Your task to perform on an android device: Add "alienware area 51" to the cart on amazon Image 0: 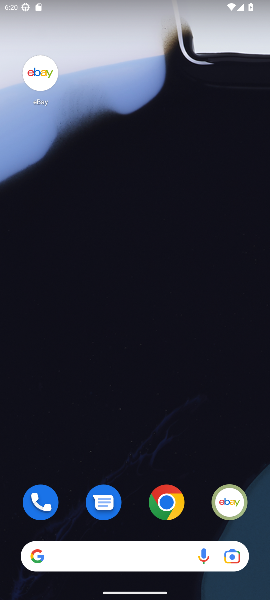
Step 0: drag from (86, 438) to (154, 154)
Your task to perform on an android device: Add "alienware area 51" to the cart on amazon Image 1: 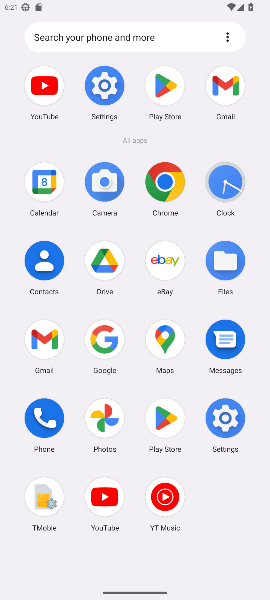
Step 1: click (102, 333)
Your task to perform on an android device: Add "alienware area 51" to the cart on amazon Image 2: 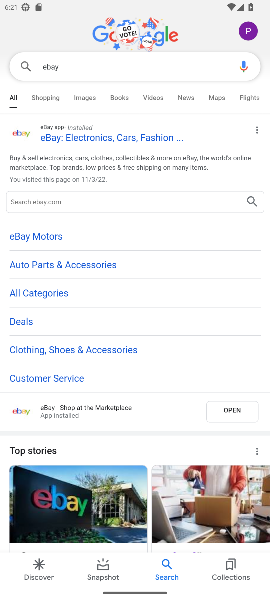
Step 2: click (83, 73)
Your task to perform on an android device: Add "alienware area 51" to the cart on amazon Image 3: 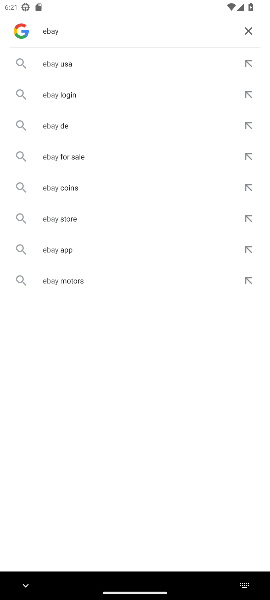
Step 3: click (242, 33)
Your task to perform on an android device: Add "alienware area 51" to the cart on amazon Image 4: 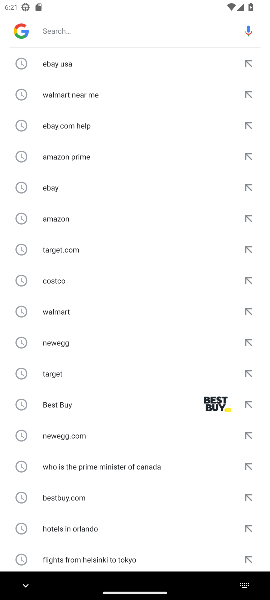
Step 4: click (65, 22)
Your task to perform on an android device: Add "alienware area 51" to the cart on amazon Image 5: 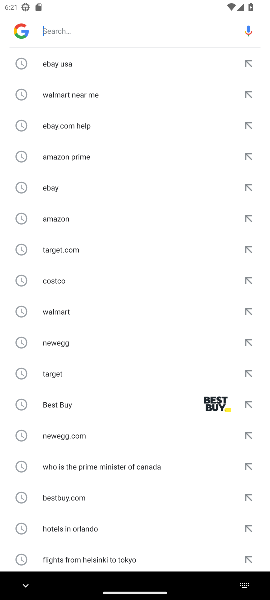
Step 5: type "amazon "
Your task to perform on an android device: Add "alienware area 51" to the cart on amazon Image 6: 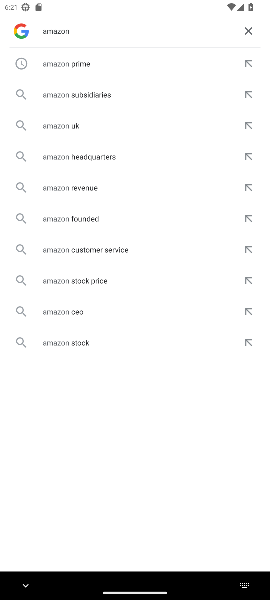
Step 6: click (54, 128)
Your task to perform on an android device: Add "alienware area 51" to the cart on amazon Image 7: 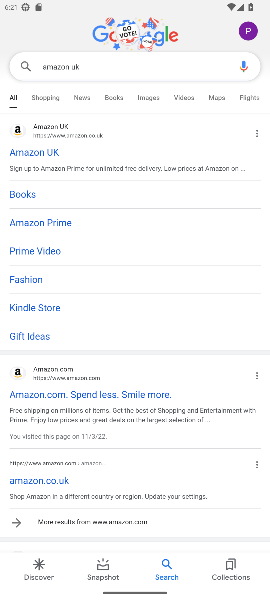
Step 7: click (15, 130)
Your task to perform on an android device: Add "alienware area 51" to the cart on amazon Image 8: 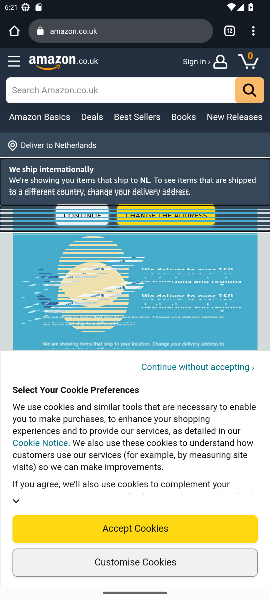
Step 8: click (92, 86)
Your task to perform on an android device: Add "alienware area 51" to the cart on amazon Image 9: 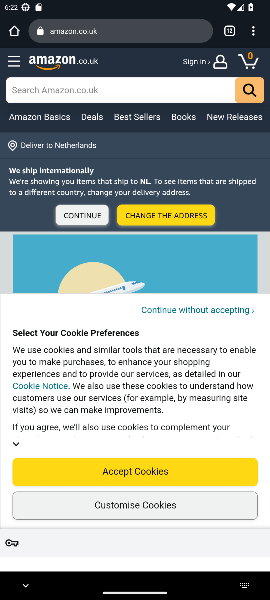
Step 9: click (53, 86)
Your task to perform on an android device: Add "alienware area 51" to the cart on amazon Image 10: 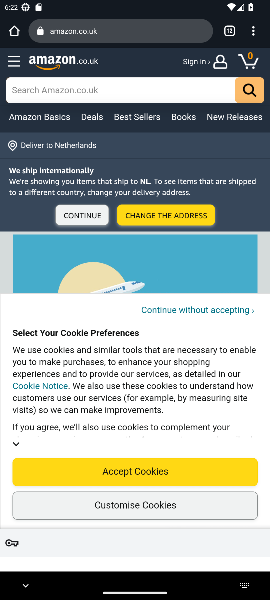
Step 10: type ""alienware area 51 "
Your task to perform on an android device: Add "alienware area 51" to the cart on amazon Image 11: 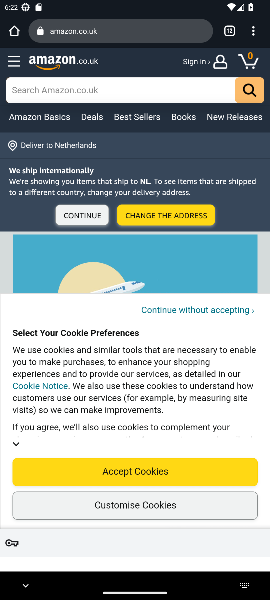
Step 11: click (64, 218)
Your task to perform on an android device: Add "alienware area 51" to the cart on amazon Image 12: 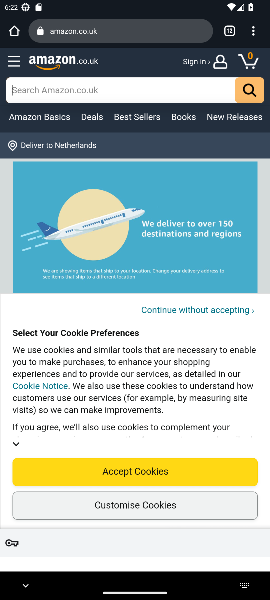
Step 12: click (152, 466)
Your task to perform on an android device: Add "alienware area 51" to the cart on amazon Image 13: 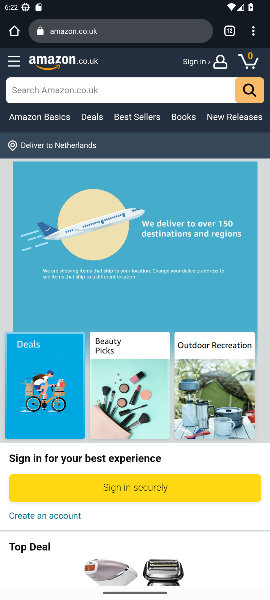
Step 13: click (113, 88)
Your task to perform on an android device: Add "alienware area 51" to the cart on amazon Image 14: 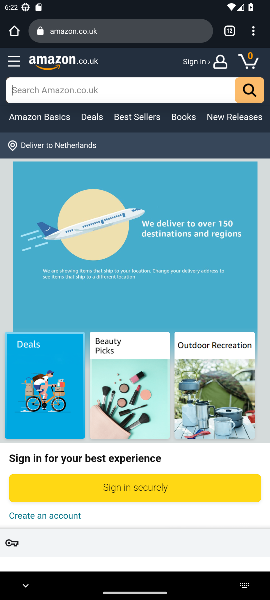
Step 14: click (113, 88)
Your task to perform on an android device: Add "alienware area 51" to the cart on amazon Image 15: 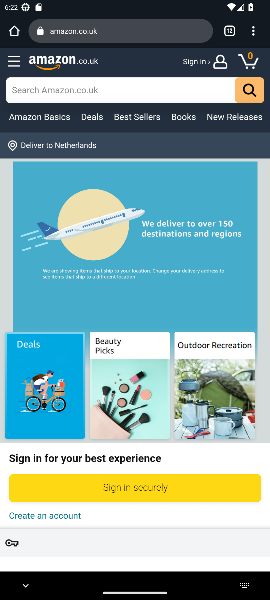
Step 15: click (113, 88)
Your task to perform on an android device: Add "alienware area 51" to the cart on amazon Image 16: 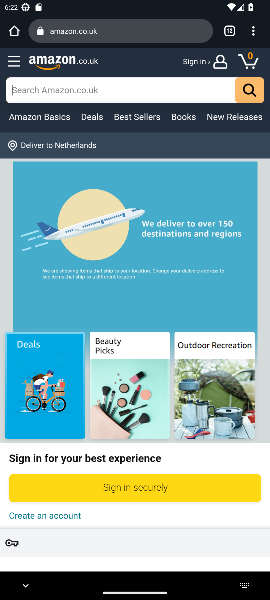
Step 16: type ""alienware area 51 "
Your task to perform on an android device: Add "alienware area 51" to the cart on amazon Image 17: 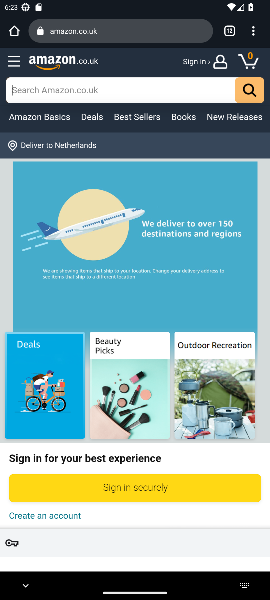
Step 17: click (78, 83)
Your task to perform on an android device: Add "alienware area 51" to the cart on amazon Image 18: 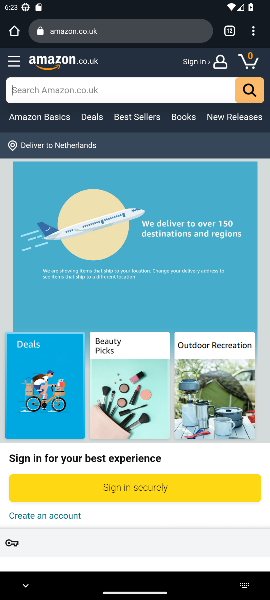
Step 18: click (78, 83)
Your task to perform on an android device: Add "alienware area 51" to the cart on amazon Image 19: 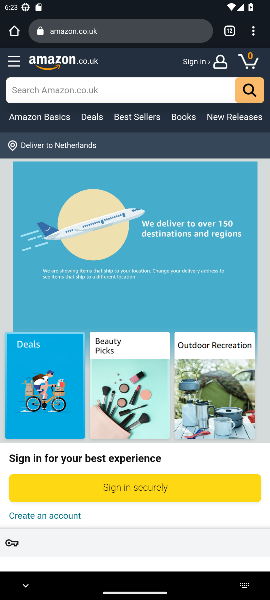
Step 19: type "alienware area 51 "
Your task to perform on an android device: Add "alienware area 51" to the cart on amazon Image 20: 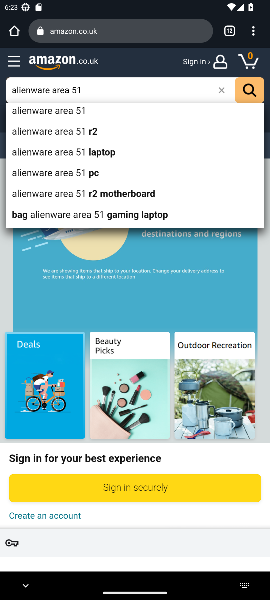
Step 20: click (69, 108)
Your task to perform on an android device: Add "alienware area 51" to the cart on amazon Image 21: 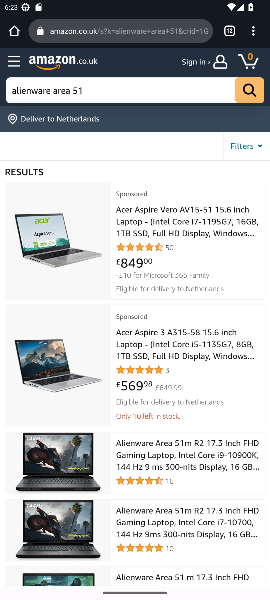
Step 21: click (152, 216)
Your task to perform on an android device: Add "alienware area 51" to the cart on amazon Image 22: 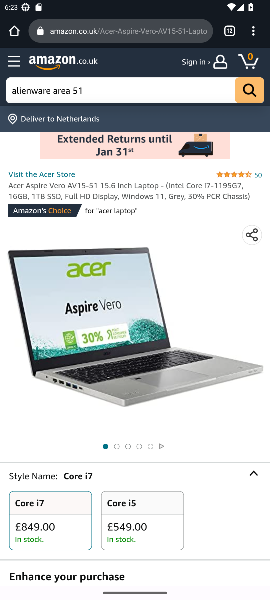
Step 22: drag from (177, 411) to (165, 268)
Your task to perform on an android device: Add "alienware area 51" to the cart on amazon Image 23: 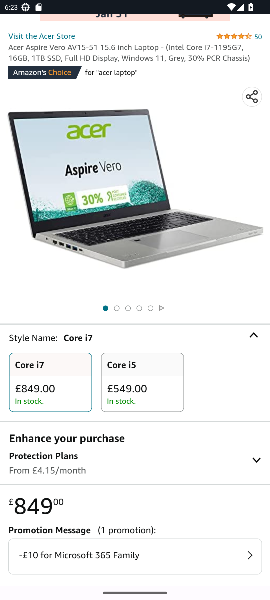
Step 23: drag from (197, 405) to (195, 208)
Your task to perform on an android device: Add "alienware area 51" to the cart on amazon Image 24: 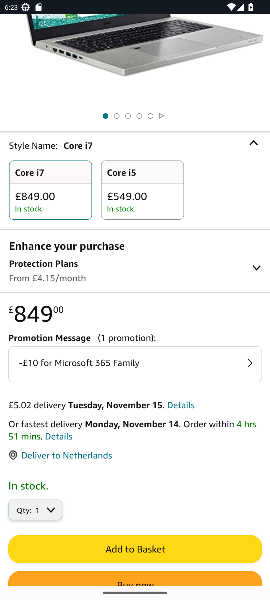
Step 24: drag from (156, 542) to (172, 262)
Your task to perform on an android device: Add "alienware area 51" to the cart on amazon Image 25: 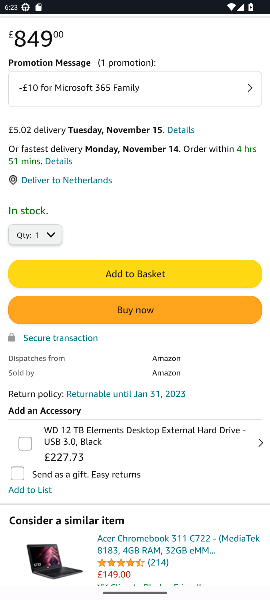
Step 25: click (147, 267)
Your task to perform on an android device: Add "alienware area 51" to the cart on amazon Image 26: 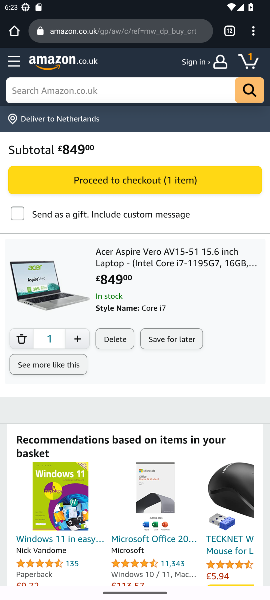
Step 26: task complete